Your task to perform on an android device: change timer sound Image 0: 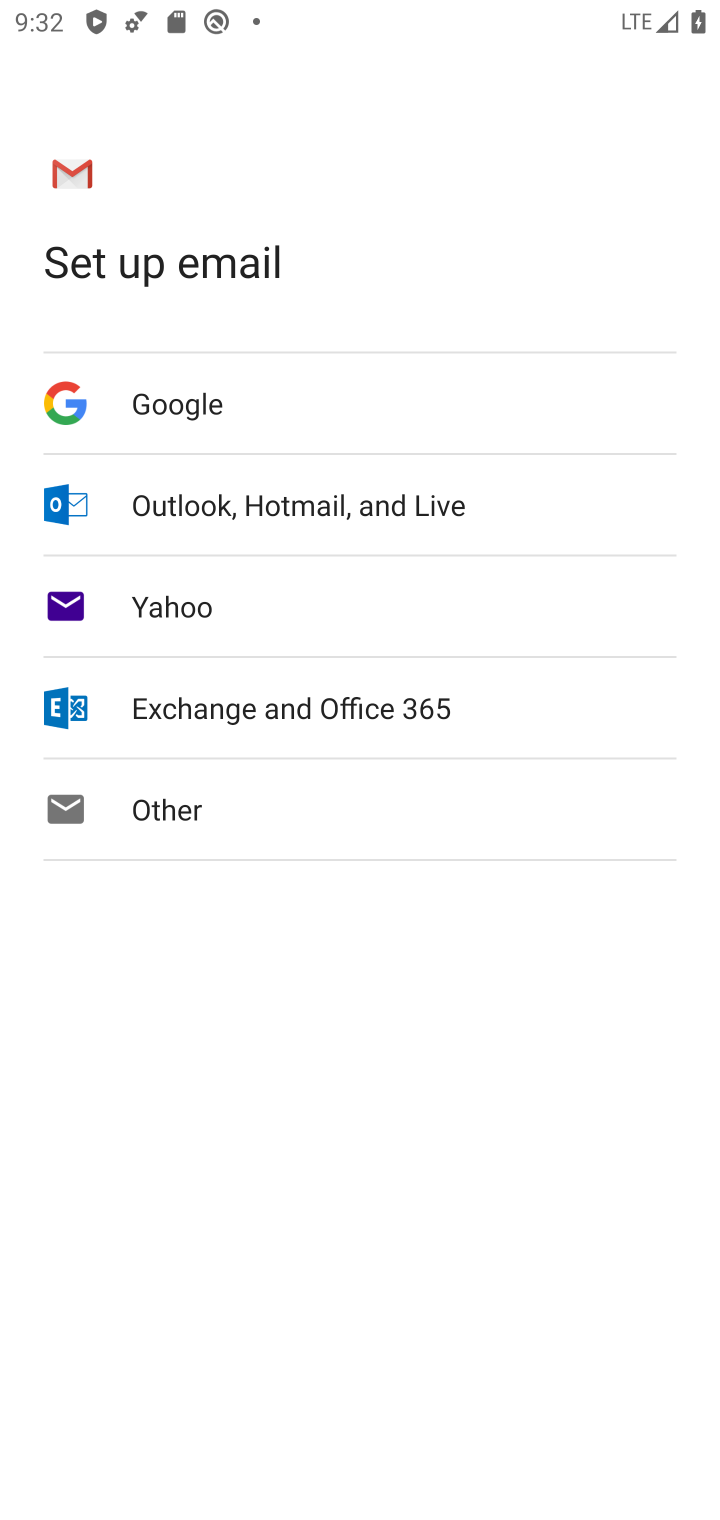
Step 0: press home button
Your task to perform on an android device: change timer sound Image 1: 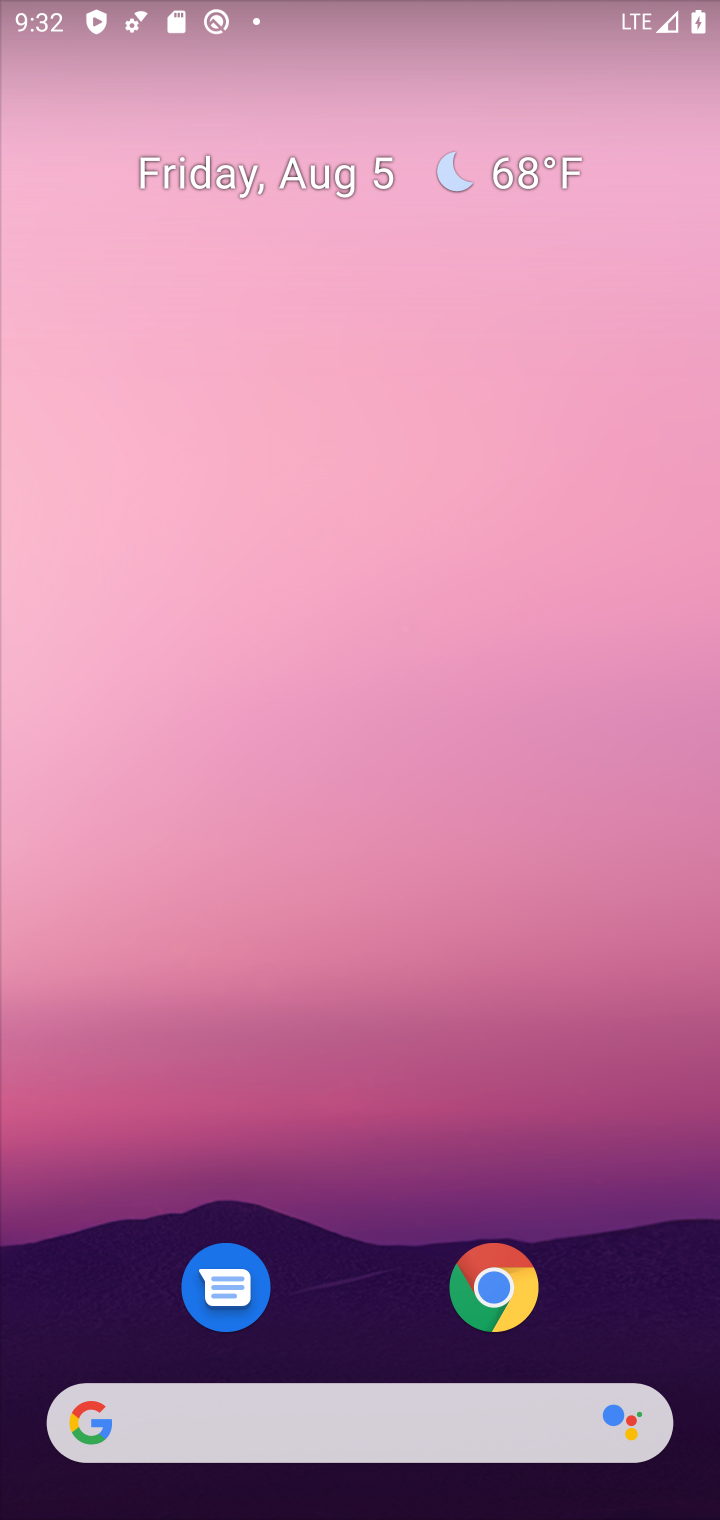
Step 1: drag from (362, 1273) to (323, 178)
Your task to perform on an android device: change timer sound Image 2: 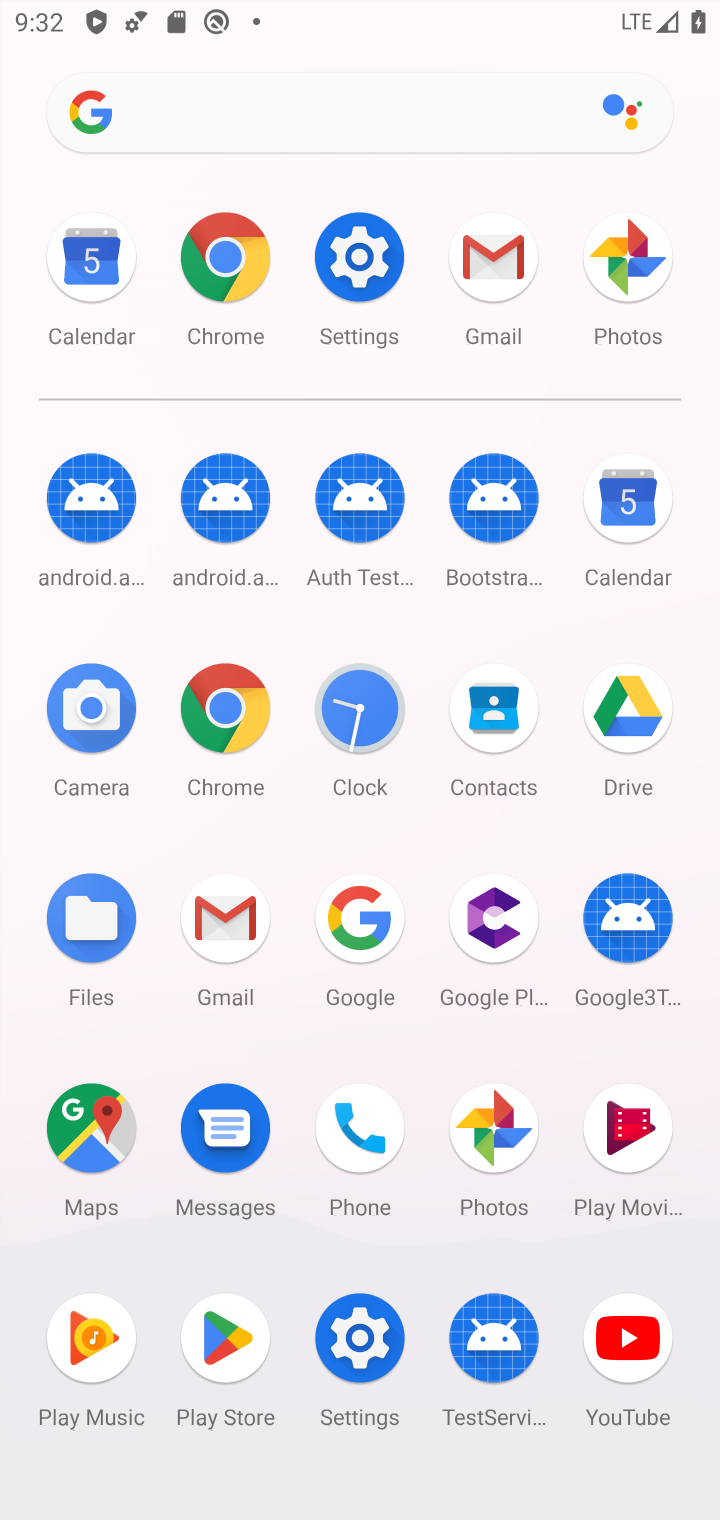
Step 2: click (353, 707)
Your task to perform on an android device: change timer sound Image 3: 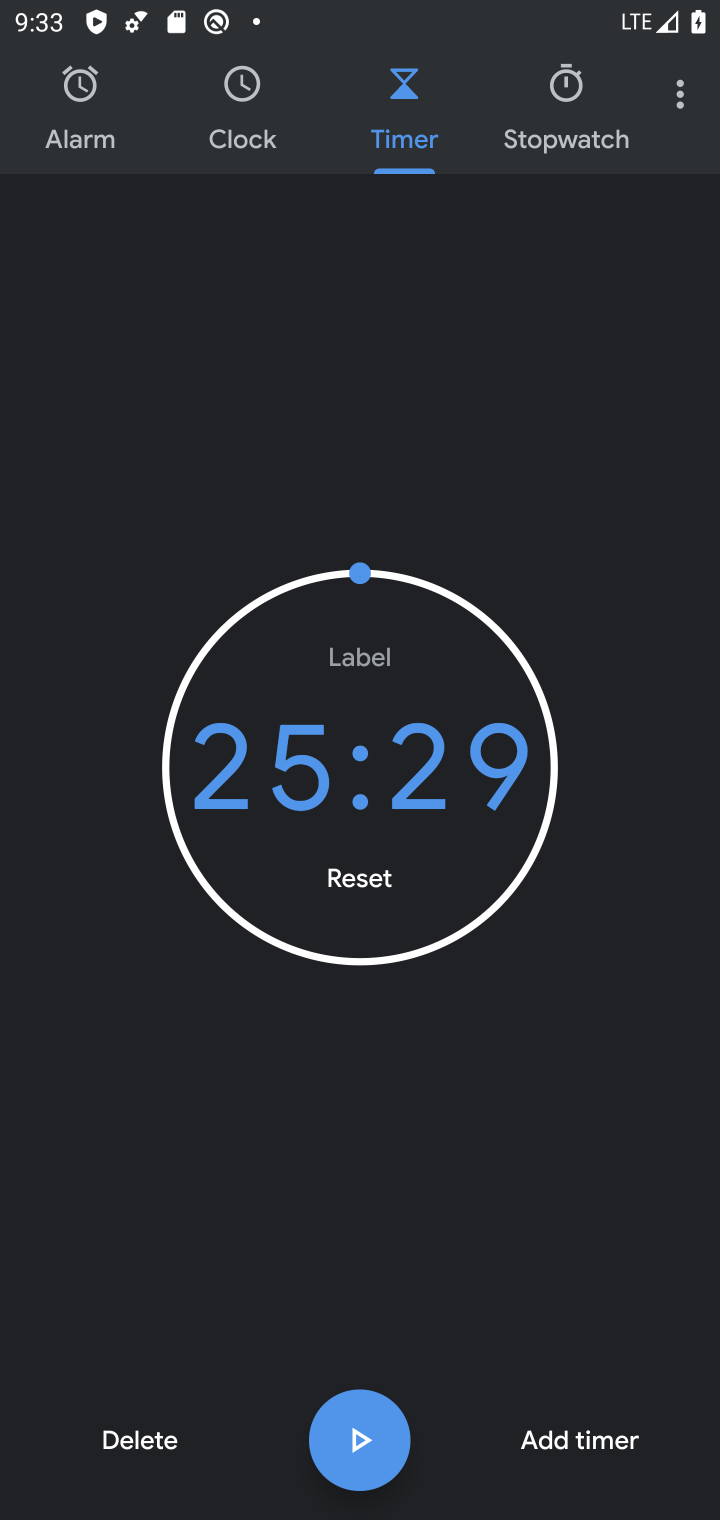
Step 3: click (678, 93)
Your task to perform on an android device: change timer sound Image 4: 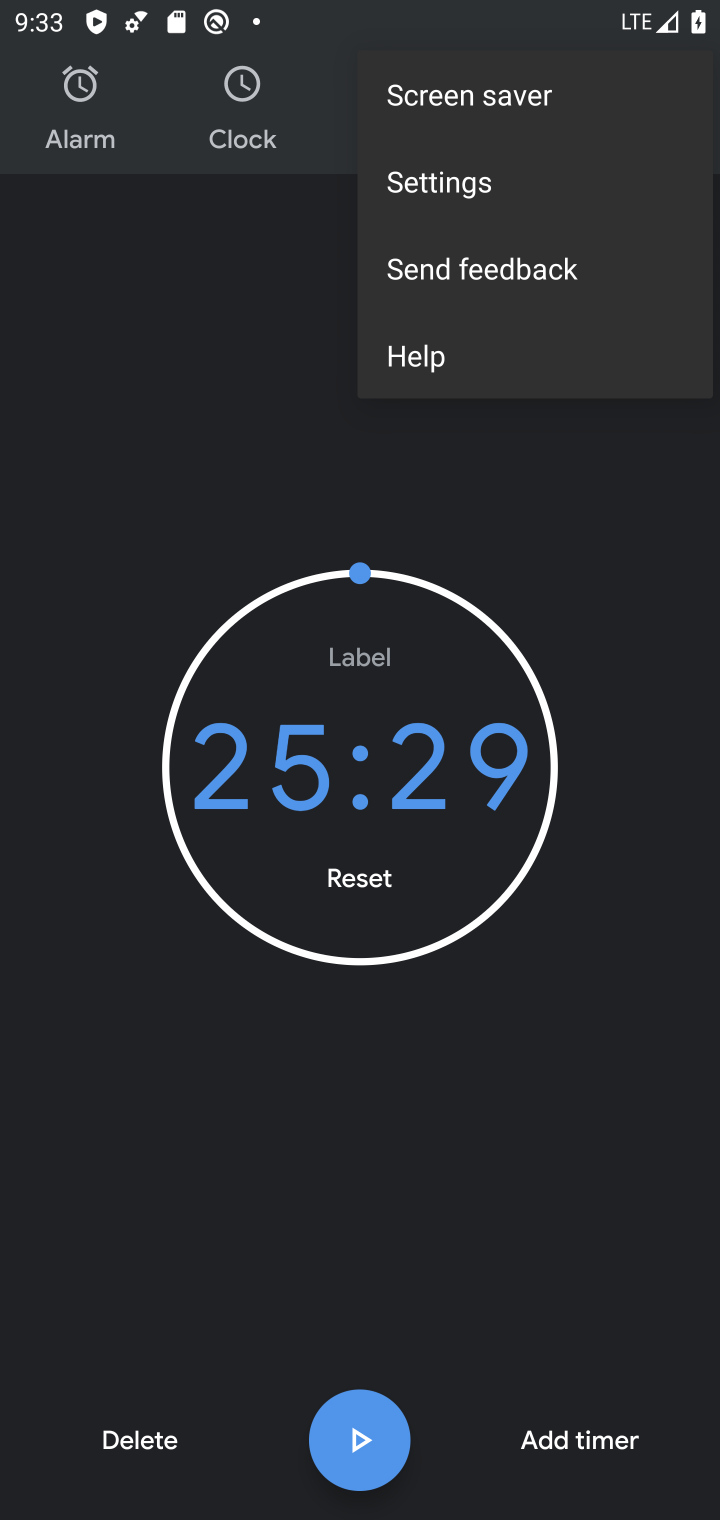
Step 4: click (480, 175)
Your task to perform on an android device: change timer sound Image 5: 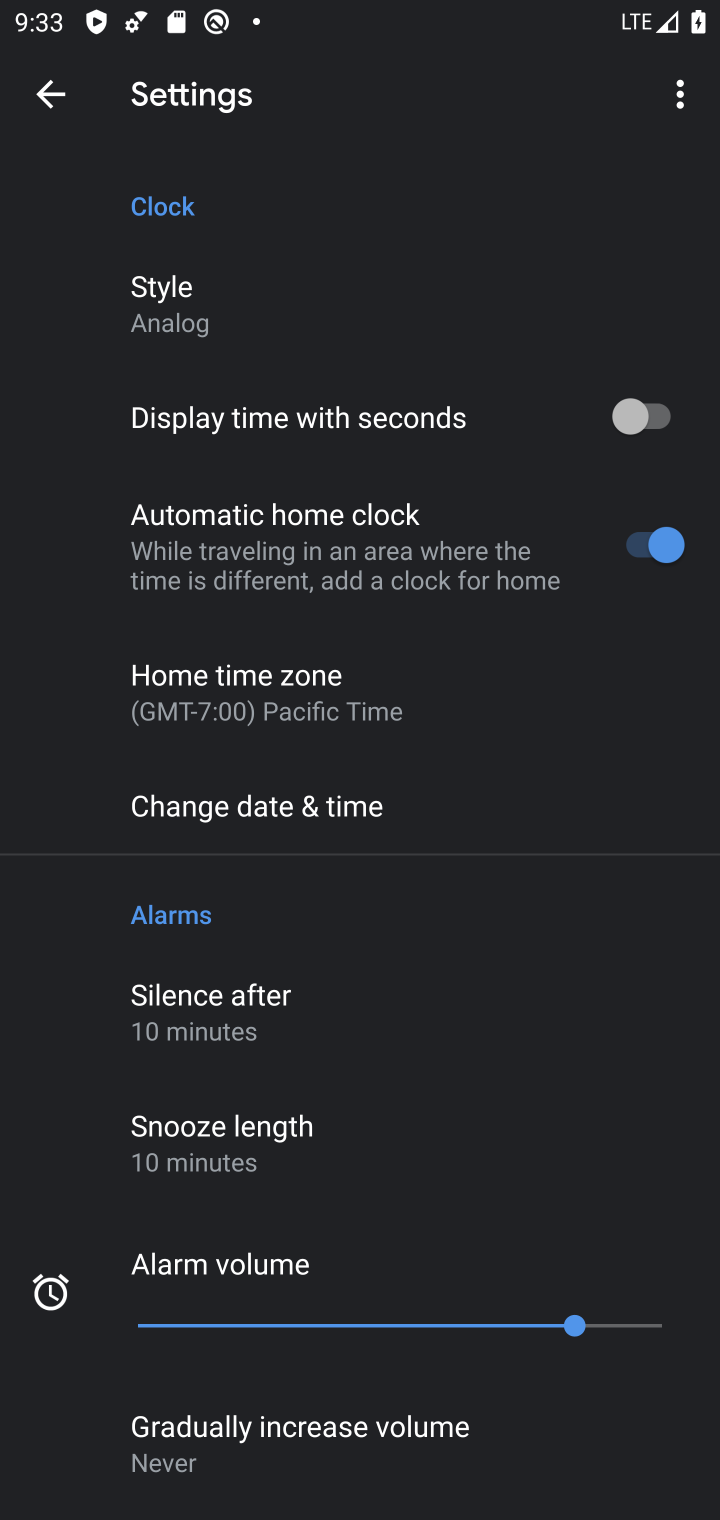
Step 5: drag from (259, 1047) to (266, 466)
Your task to perform on an android device: change timer sound Image 6: 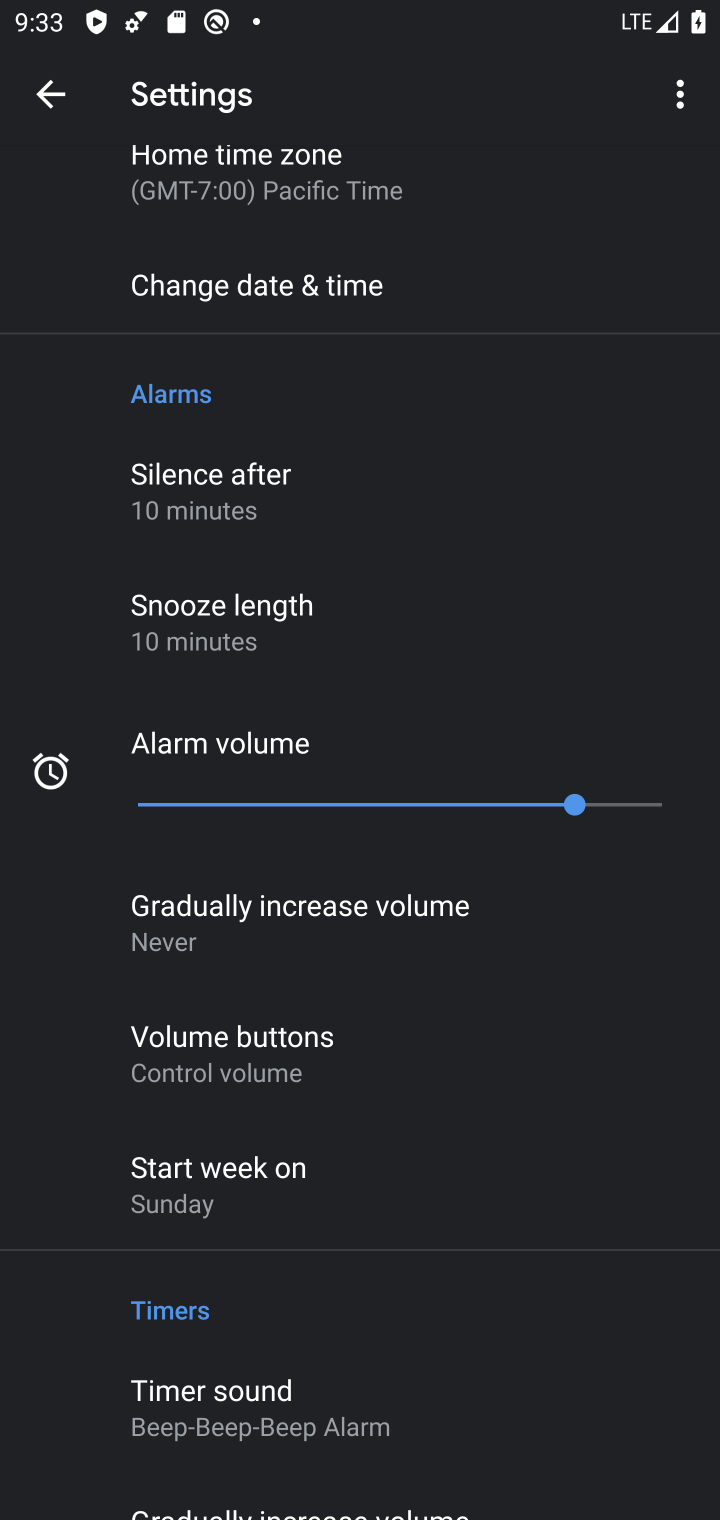
Step 6: click (235, 1407)
Your task to perform on an android device: change timer sound Image 7: 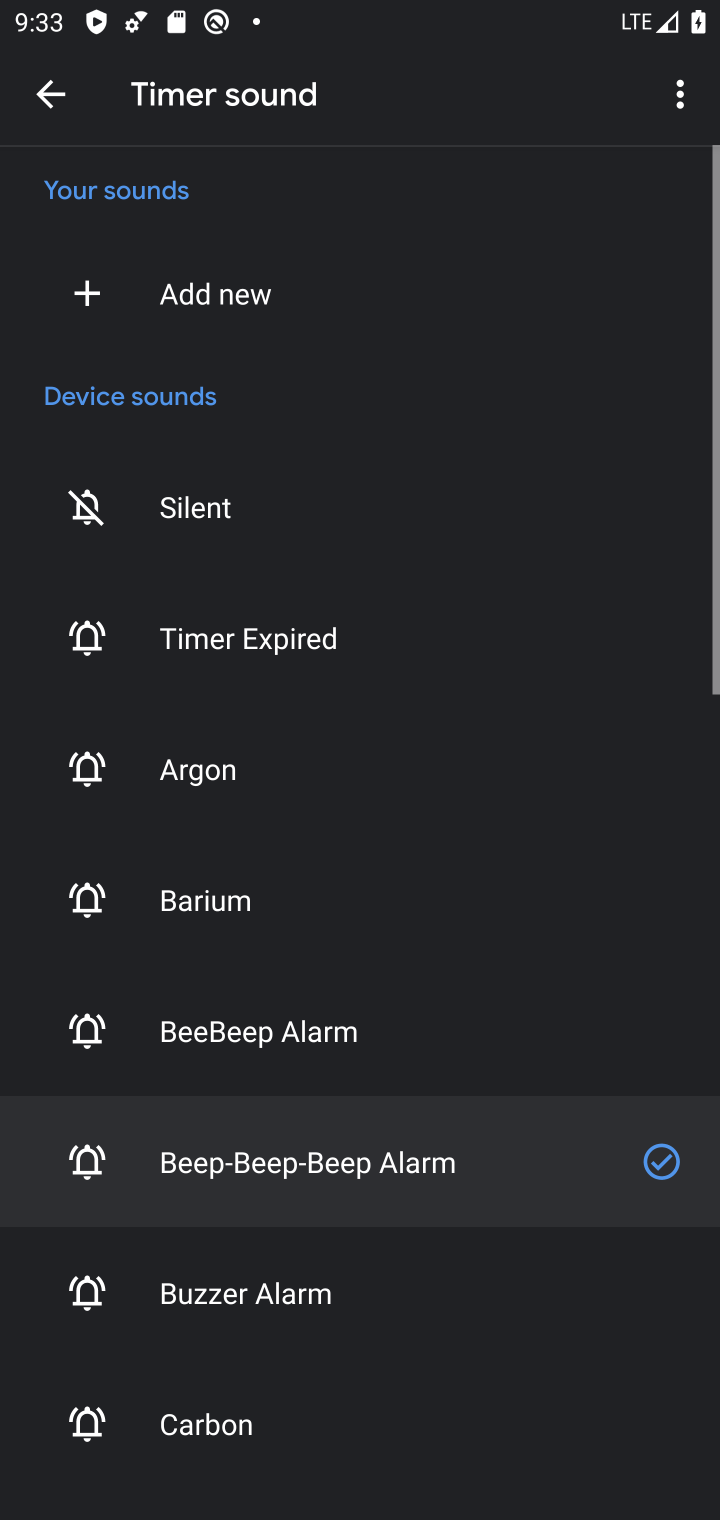
Step 7: click (183, 1422)
Your task to perform on an android device: change timer sound Image 8: 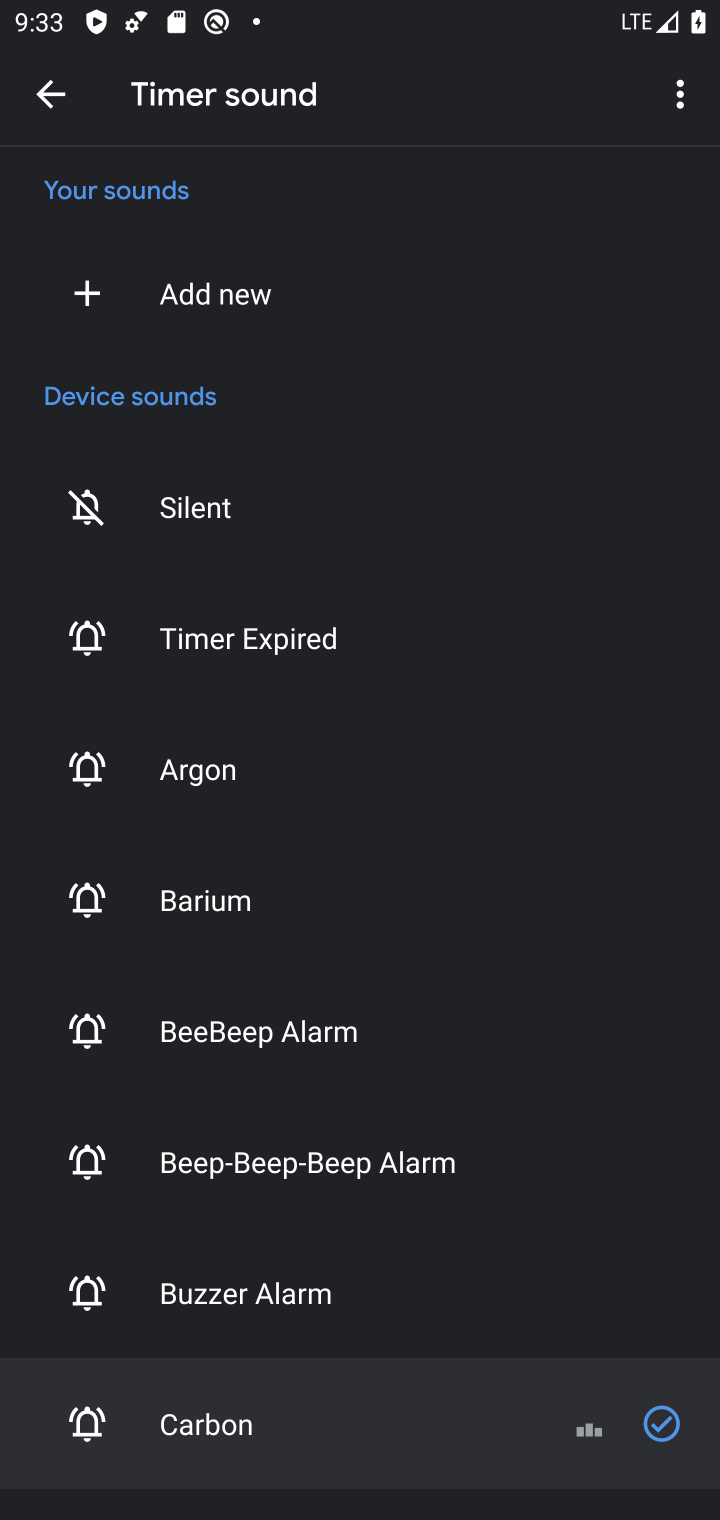
Step 8: task complete